Your task to perform on an android device: Open eBay Image 0: 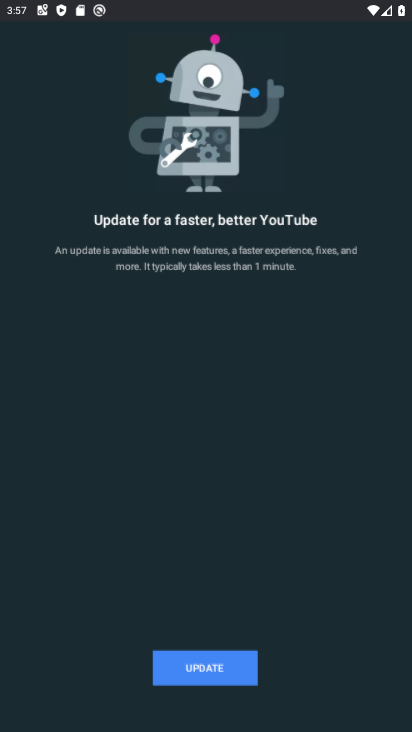
Step 0: drag from (137, 621) to (221, 303)
Your task to perform on an android device: Open eBay Image 1: 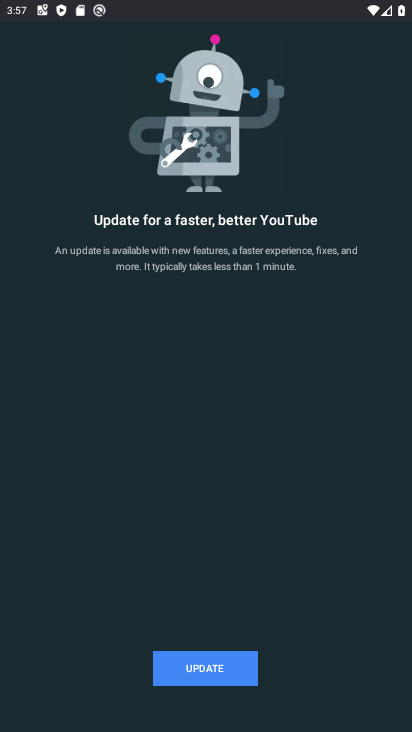
Step 1: press home button
Your task to perform on an android device: Open eBay Image 2: 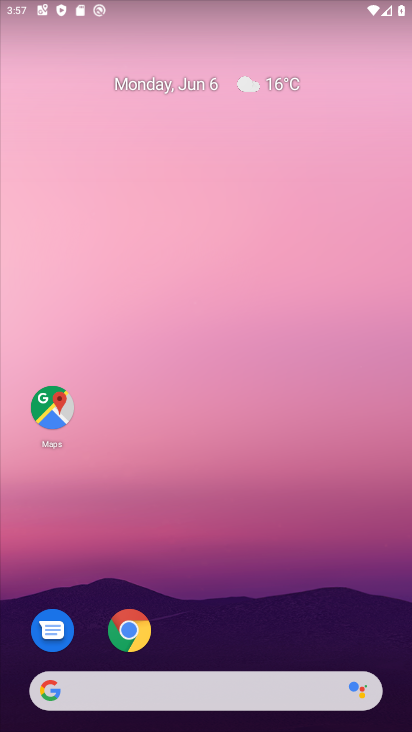
Step 2: click (125, 616)
Your task to perform on an android device: Open eBay Image 3: 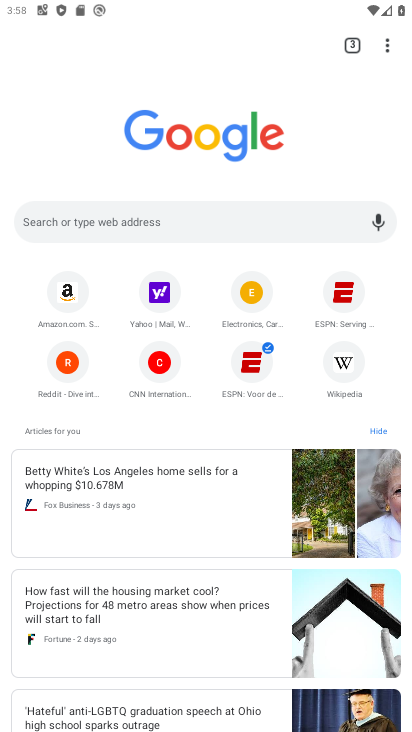
Step 3: click (130, 206)
Your task to perform on an android device: Open eBay Image 4: 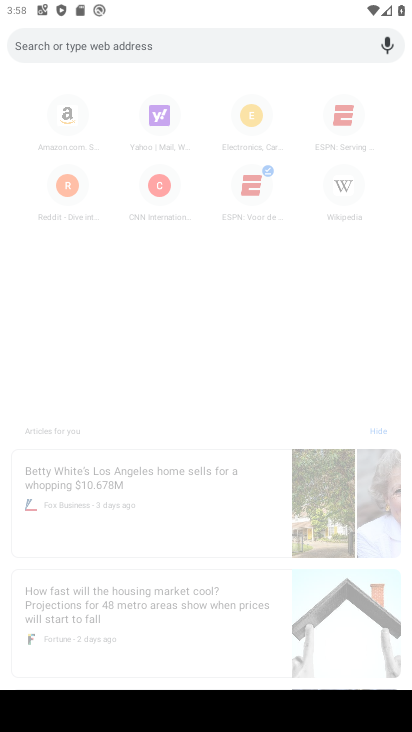
Step 4: type "ebay"
Your task to perform on an android device: Open eBay Image 5: 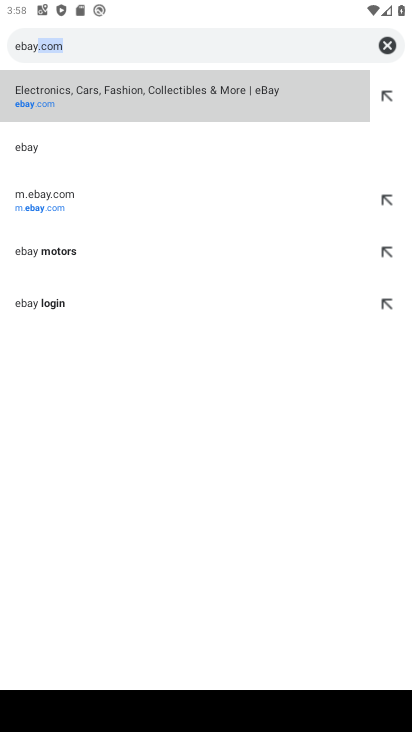
Step 5: click (59, 79)
Your task to perform on an android device: Open eBay Image 6: 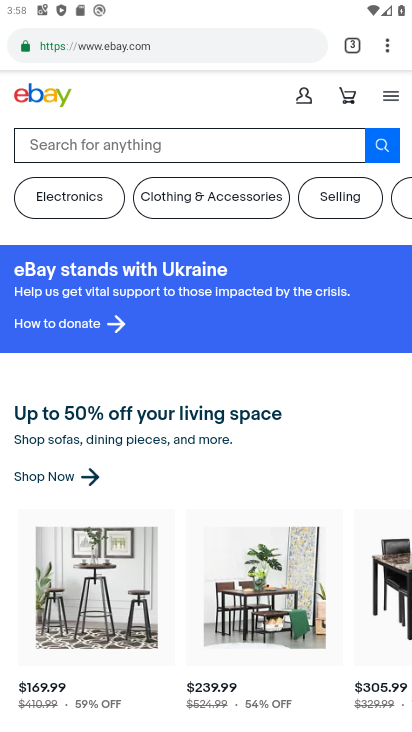
Step 6: task complete